Your task to perform on an android device: delete a single message in the gmail app Image 0: 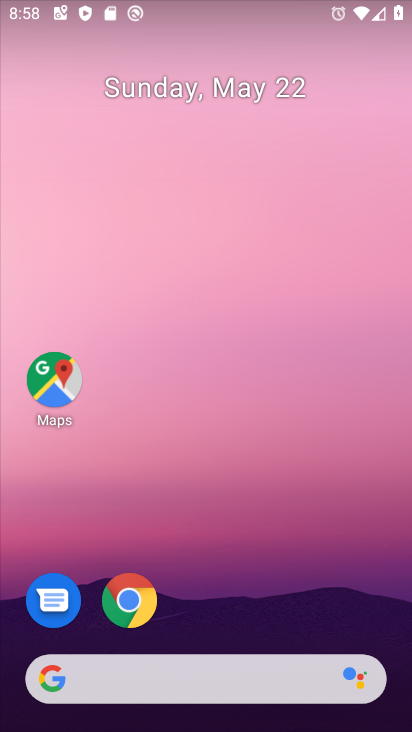
Step 0: drag from (260, 483) to (346, 6)
Your task to perform on an android device: delete a single message in the gmail app Image 1: 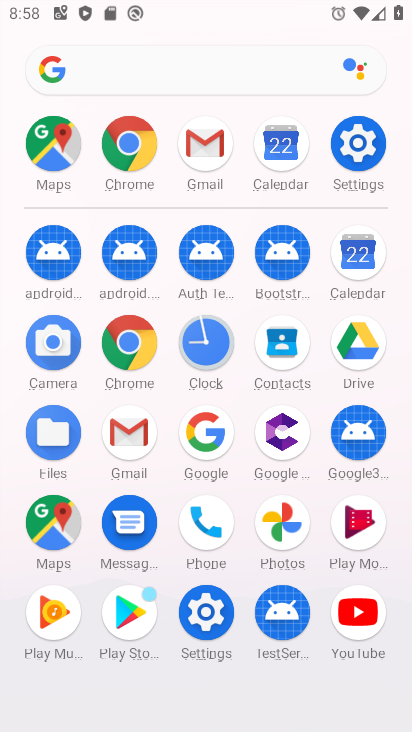
Step 1: drag from (223, 532) to (227, 264)
Your task to perform on an android device: delete a single message in the gmail app Image 2: 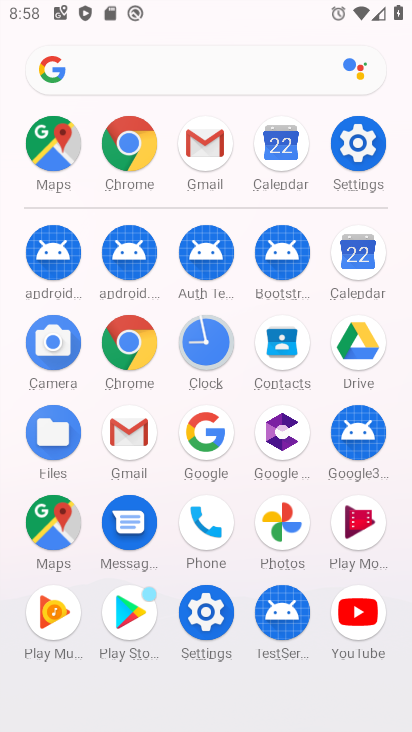
Step 2: click (134, 444)
Your task to perform on an android device: delete a single message in the gmail app Image 3: 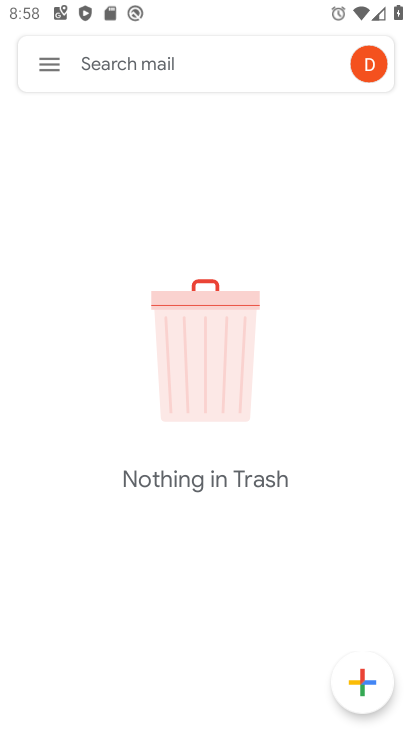
Step 3: click (47, 65)
Your task to perform on an android device: delete a single message in the gmail app Image 4: 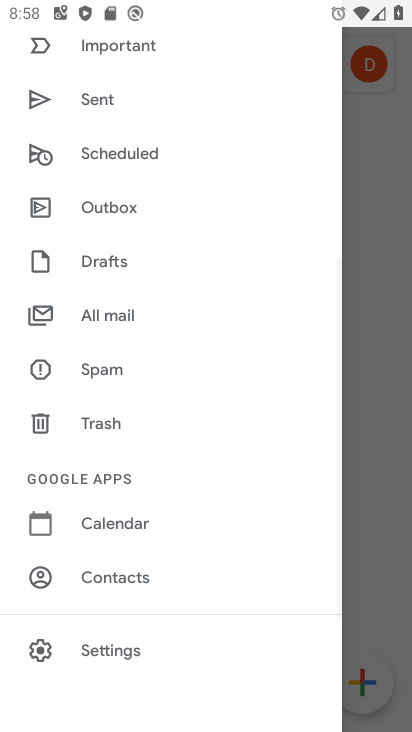
Step 4: click (116, 313)
Your task to perform on an android device: delete a single message in the gmail app Image 5: 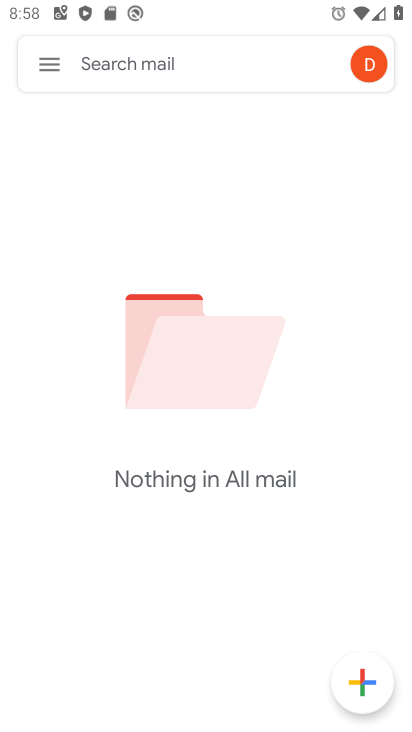
Step 5: task complete